Your task to perform on an android device: delete browsing data in the chrome app Image 0: 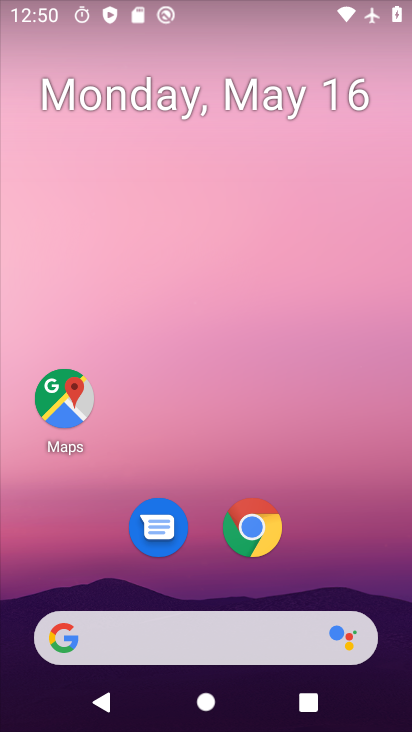
Step 0: press home button
Your task to perform on an android device: delete browsing data in the chrome app Image 1: 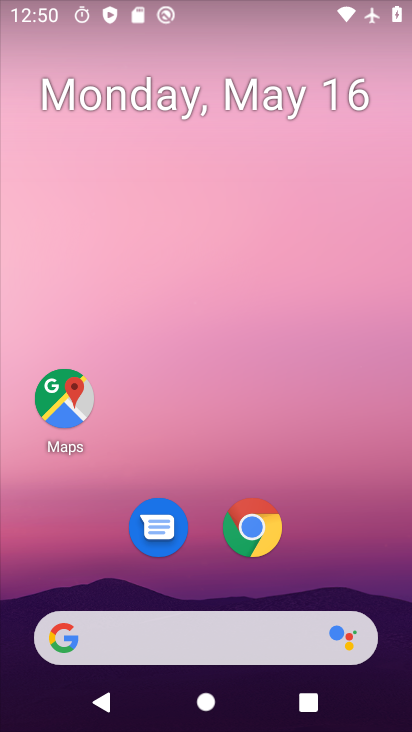
Step 1: drag from (145, 642) to (338, 132)
Your task to perform on an android device: delete browsing data in the chrome app Image 2: 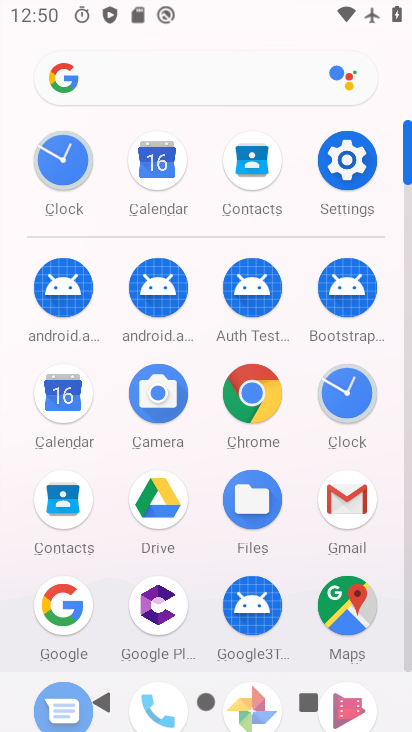
Step 2: click (266, 397)
Your task to perform on an android device: delete browsing data in the chrome app Image 3: 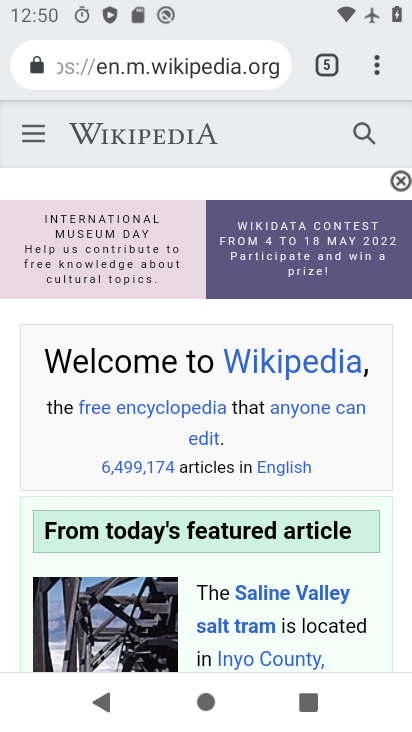
Step 3: drag from (375, 63) to (221, 580)
Your task to perform on an android device: delete browsing data in the chrome app Image 4: 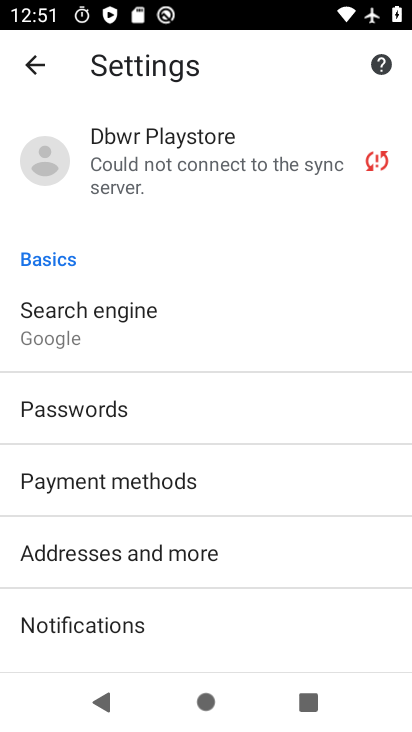
Step 4: drag from (215, 587) to (370, 127)
Your task to perform on an android device: delete browsing data in the chrome app Image 5: 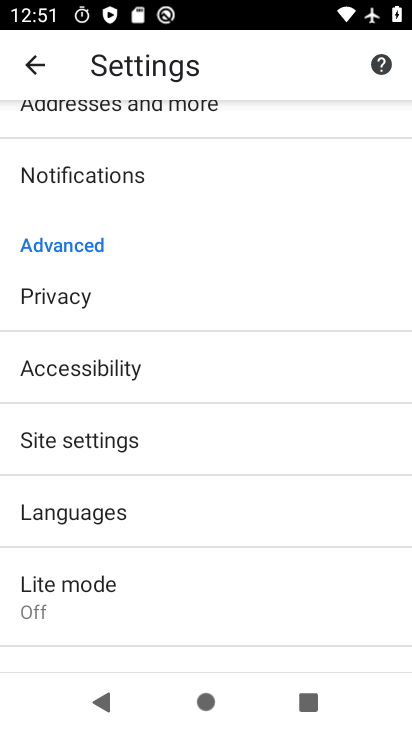
Step 5: click (116, 295)
Your task to perform on an android device: delete browsing data in the chrome app Image 6: 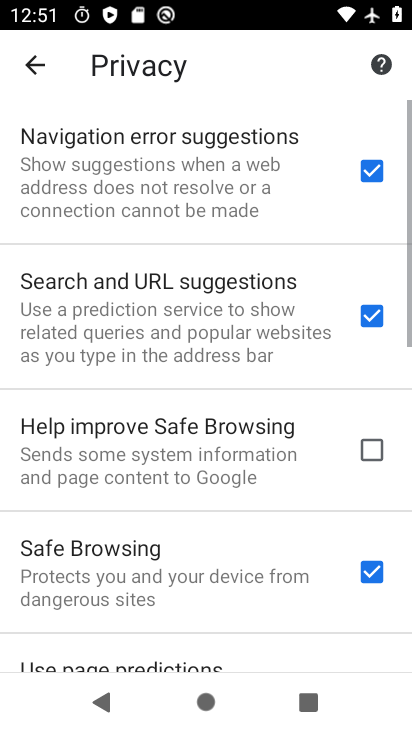
Step 6: drag from (158, 599) to (357, 30)
Your task to perform on an android device: delete browsing data in the chrome app Image 7: 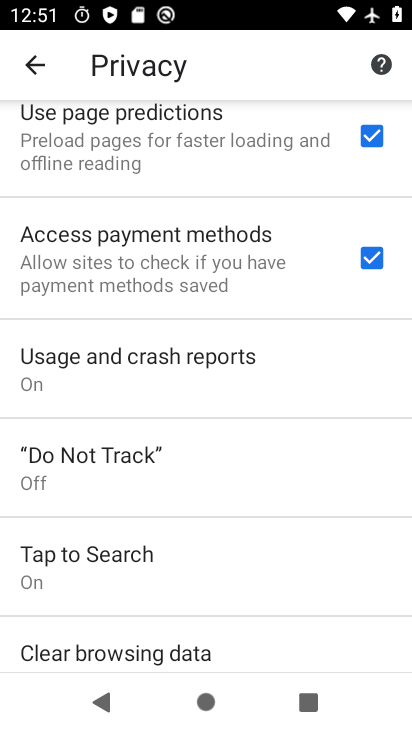
Step 7: drag from (183, 567) to (322, 140)
Your task to perform on an android device: delete browsing data in the chrome app Image 8: 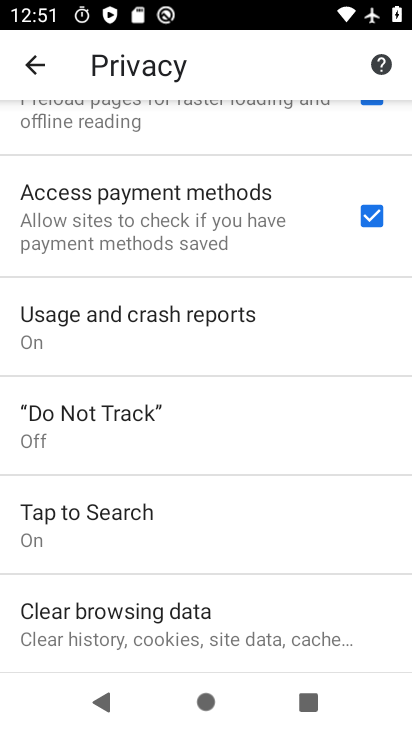
Step 8: click (185, 627)
Your task to perform on an android device: delete browsing data in the chrome app Image 9: 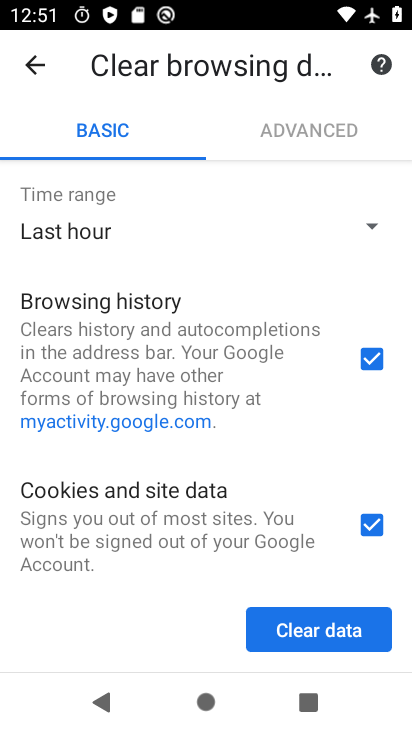
Step 9: drag from (190, 461) to (292, 292)
Your task to perform on an android device: delete browsing data in the chrome app Image 10: 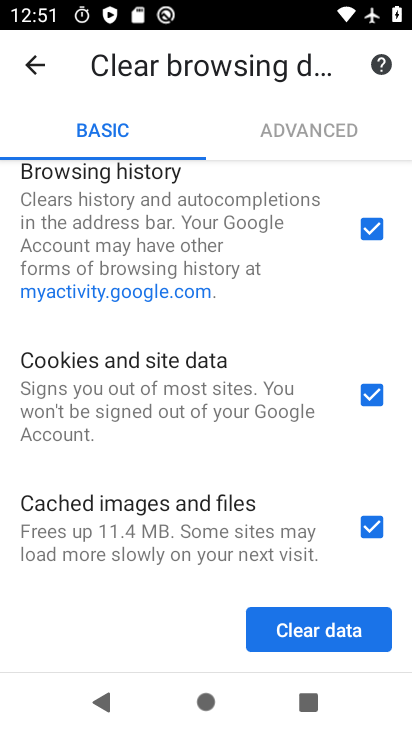
Step 10: click (315, 633)
Your task to perform on an android device: delete browsing data in the chrome app Image 11: 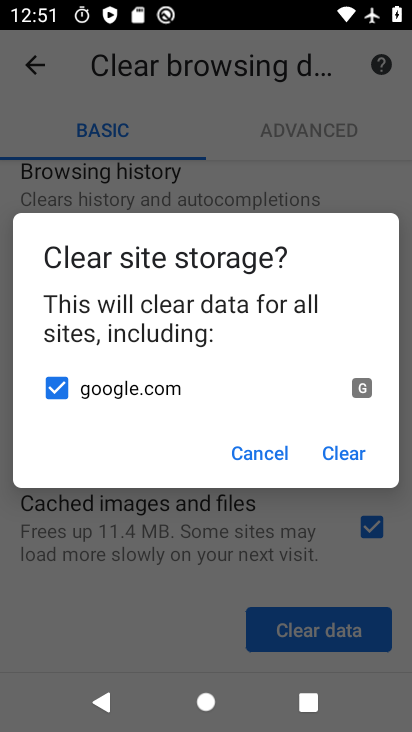
Step 11: click (344, 455)
Your task to perform on an android device: delete browsing data in the chrome app Image 12: 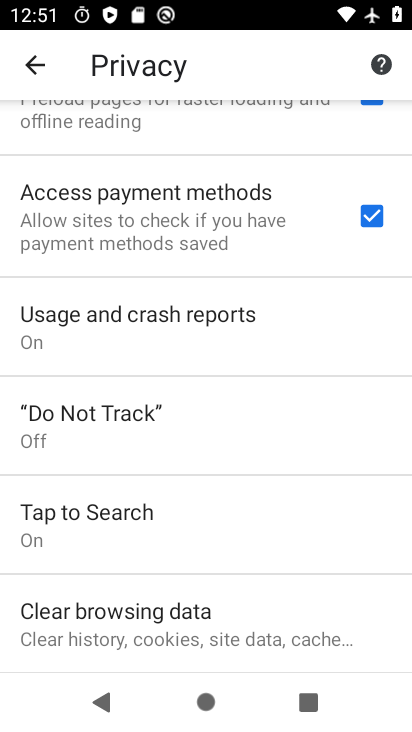
Step 12: task complete